Your task to perform on an android device: Show me recent news Image 0: 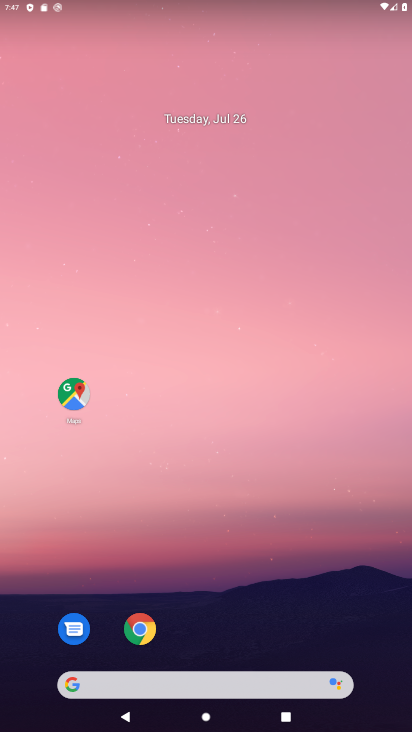
Step 0: press home button
Your task to perform on an android device: Show me recent news Image 1: 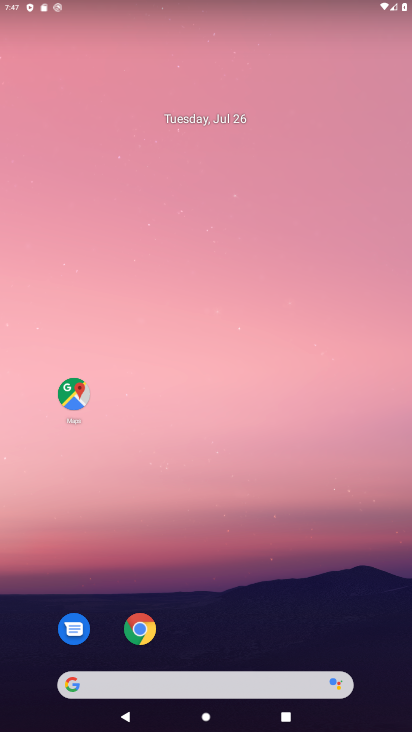
Step 1: task complete